Your task to perform on an android device: turn on airplane mode Image 0: 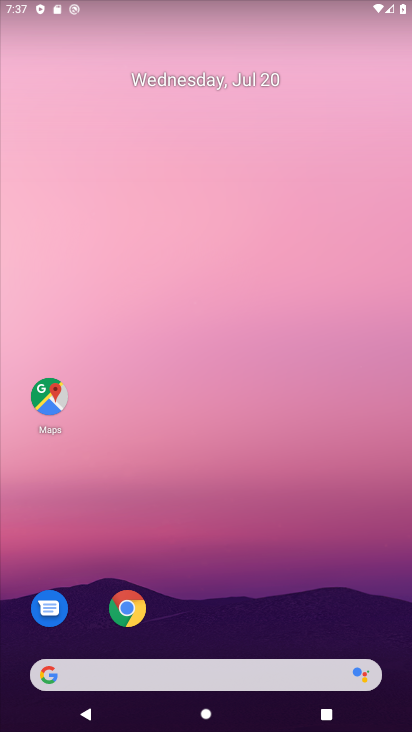
Step 0: drag from (331, 586) to (277, 73)
Your task to perform on an android device: turn on airplane mode Image 1: 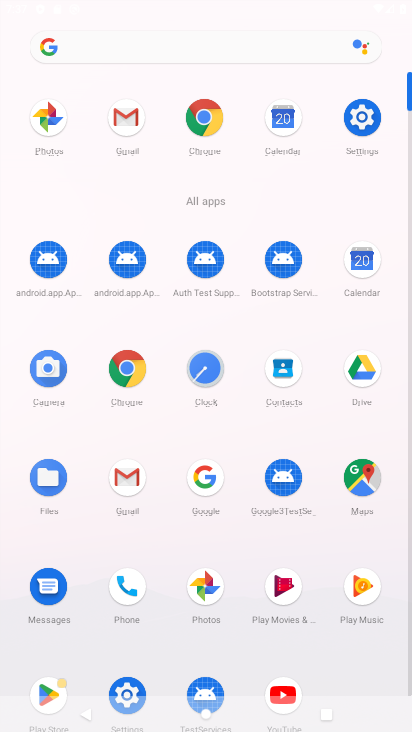
Step 1: click (374, 116)
Your task to perform on an android device: turn on airplane mode Image 2: 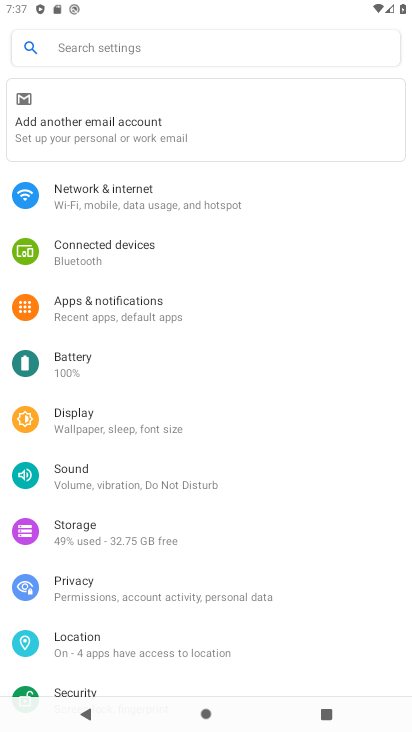
Step 2: click (96, 207)
Your task to perform on an android device: turn on airplane mode Image 3: 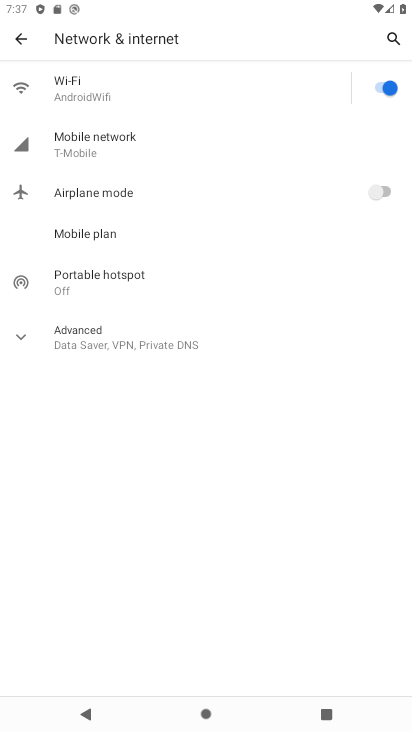
Step 3: click (384, 183)
Your task to perform on an android device: turn on airplane mode Image 4: 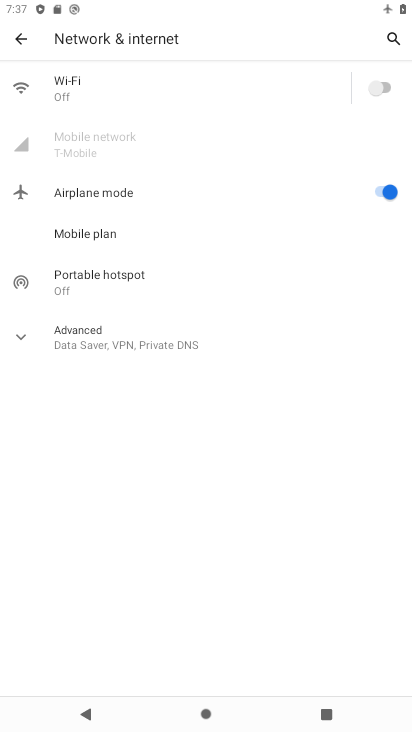
Step 4: task complete